Your task to perform on an android device: Go to Google Image 0: 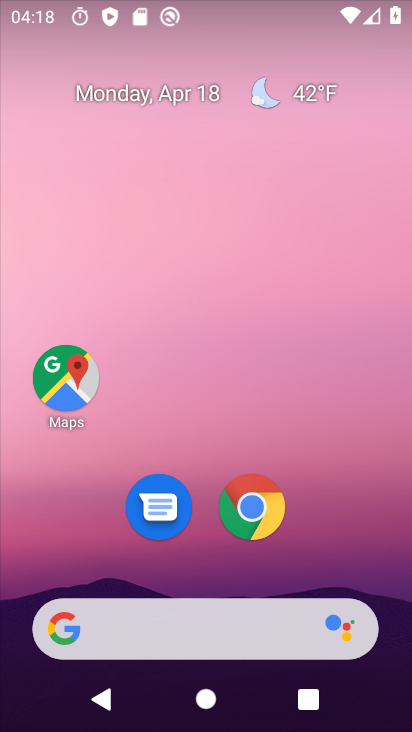
Step 0: drag from (190, 586) to (275, 62)
Your task to perform on an android device: Go to Google Image 1: 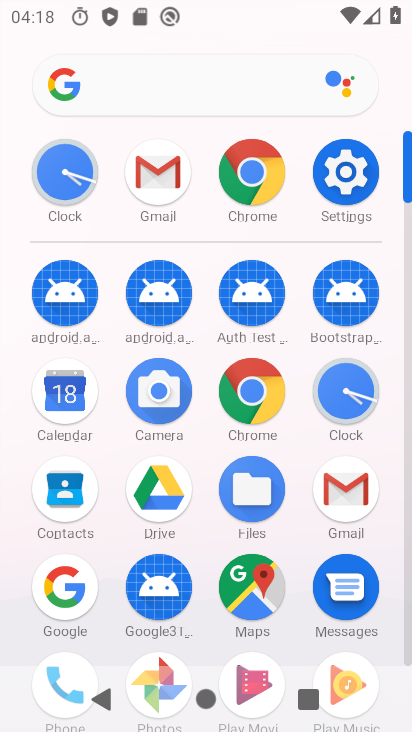
Step 1: click (69, 592)
Your task to perform on an android device: Go to Google Image 2: 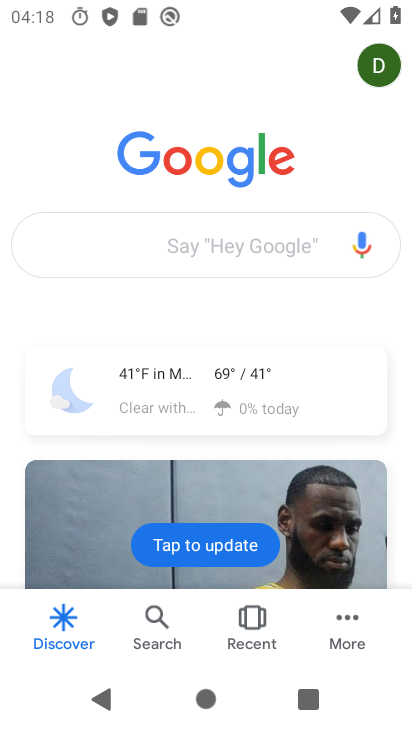
Step 2: task complete